Your task to perform on an android device: Open calendar and show me the first week of next month Image 0: 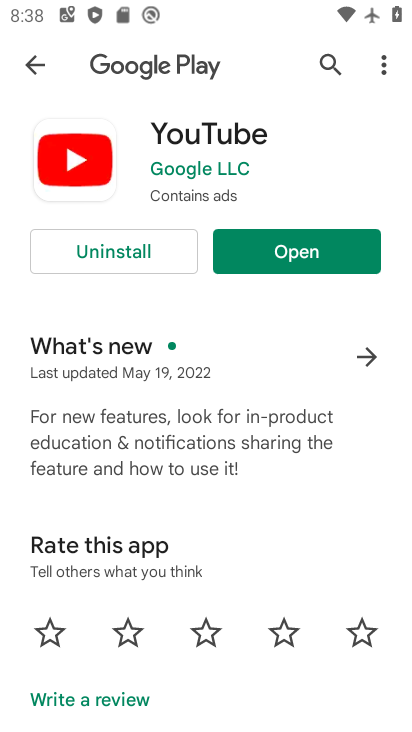
Step 0: press home button
Your task to perform on an android device: Open calendar and show me the first week of next month Image 1: 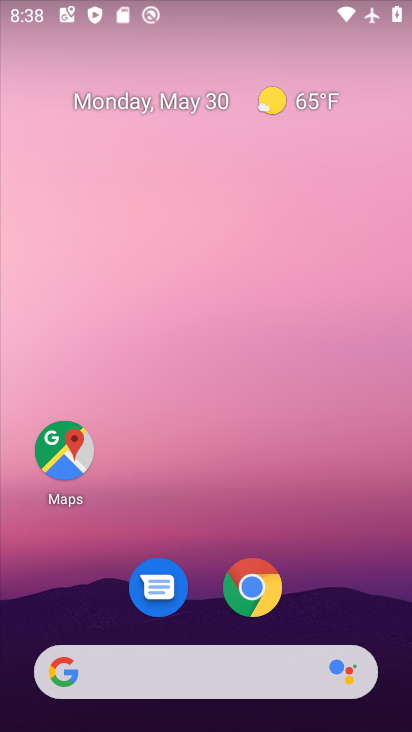
Step 1: drag from (169, 673) to (358, 149)
Your task to perform on an android device: Open calendar and show me the first week of next month Image 2: 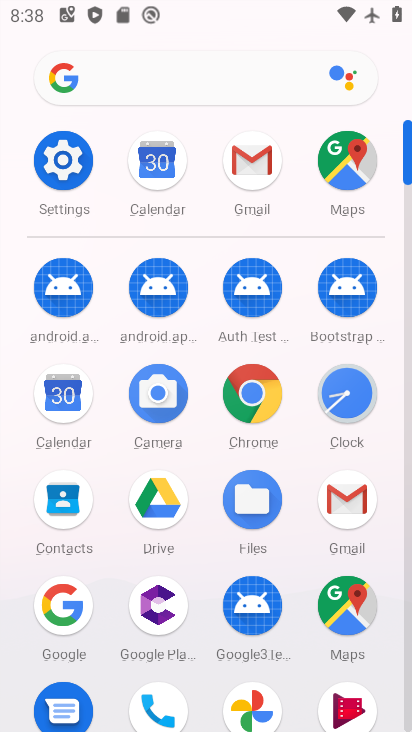
Step 2: click (157, 168)
Your task to perform on an android device: Open calendar and show me the first week of next month Image 3: 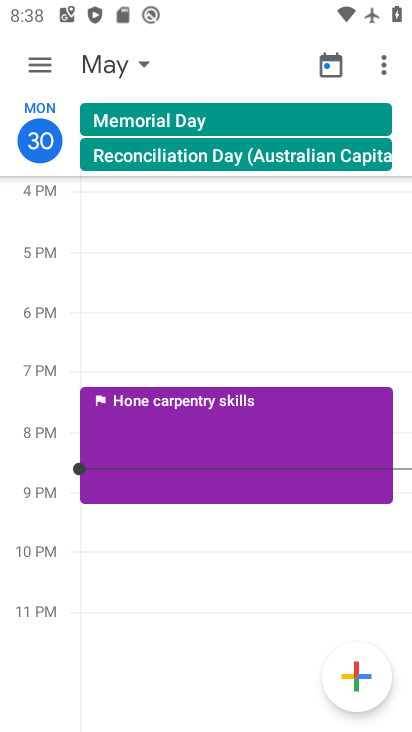
Step 3: click (114, 64)
Your task to perform on an android device: Open calendar and show me the first week of next month Image 4: 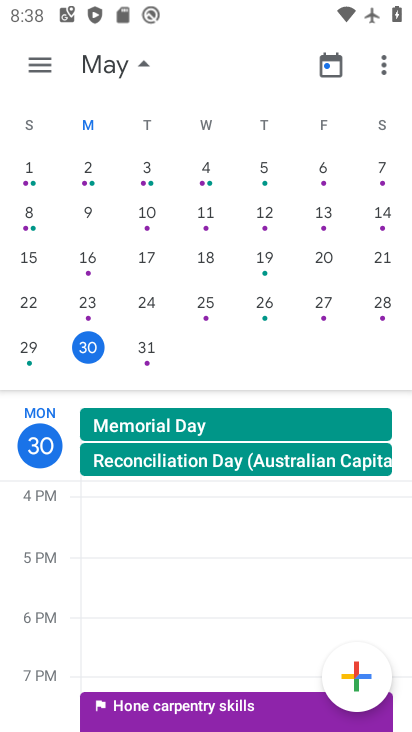
Step 4: drag from (353, 195) to (32, 224)
Your task to perform on an android device: Open calendar and show me the first week of next month Image 5: 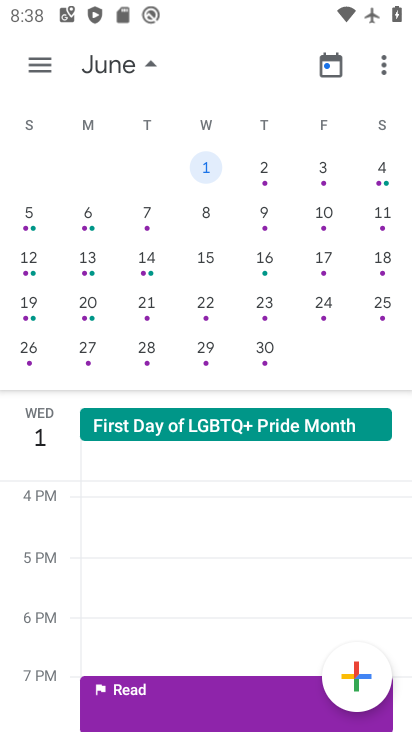
Step 5: click (33, 210)
Your task to perform on an android device: Open calendar and show me the first week of next month Image 6: 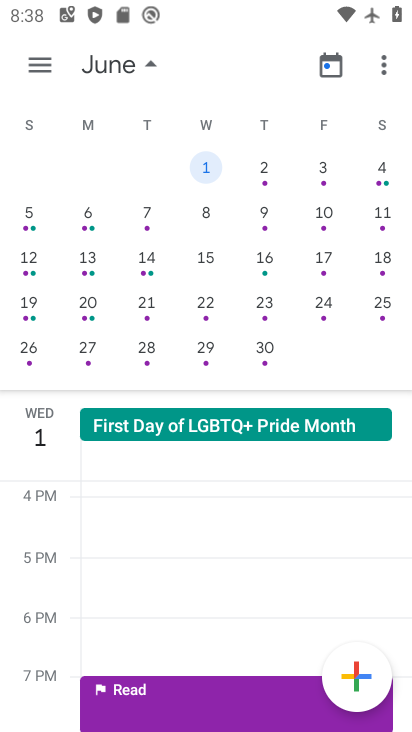
Step 6: click (29, 223)
Your task to perform on an android device: Open calendar and show me the first week of next month Image 7: 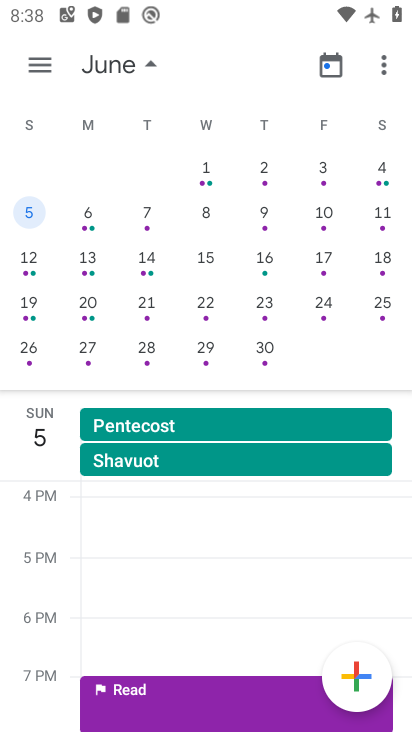
Step 7: click (206, 171)
Your task to perform on an android device: Open calendar and show me the first week of next month Image 8: 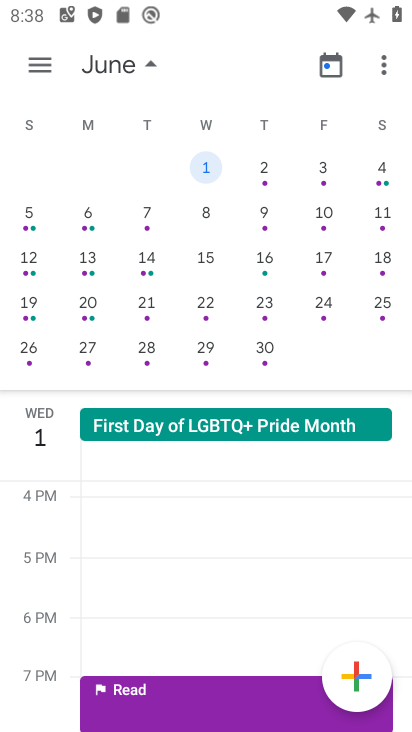
Step 8: click (45, 66)
Your task to perform on an android device: Open calendar and show me the first week of next month Image 9: 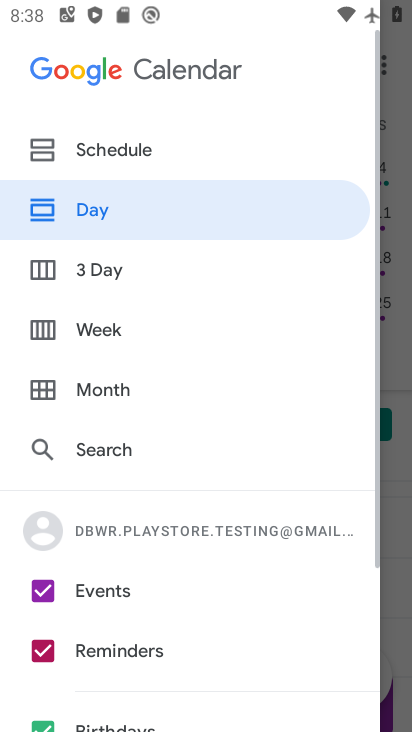
Step 9: click (121, 338)
Your task to perform on an android device: Open calendar and show me the first week of next month Image 10: 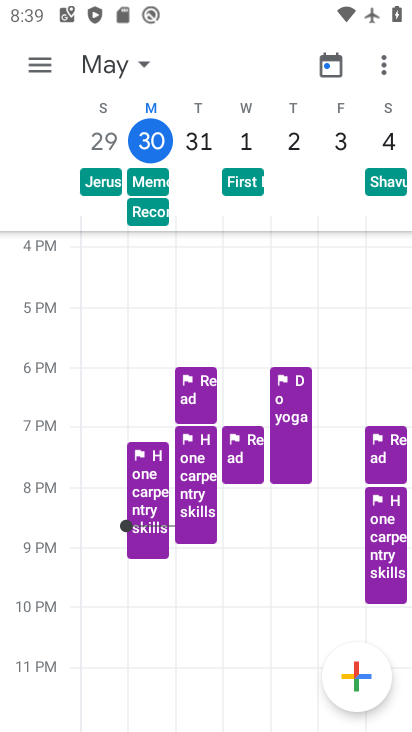
Step 10: task complete